Your task to perform on an android device: Open maps Image 0: 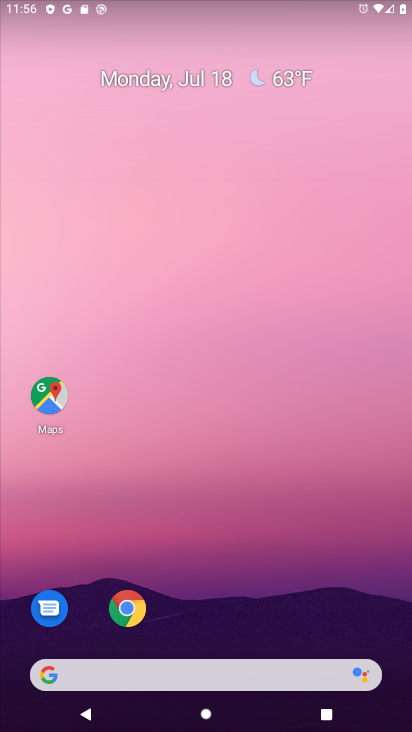
Step 0: click (57, 387)
Your task to perform on an android device: Open maps Image 1: 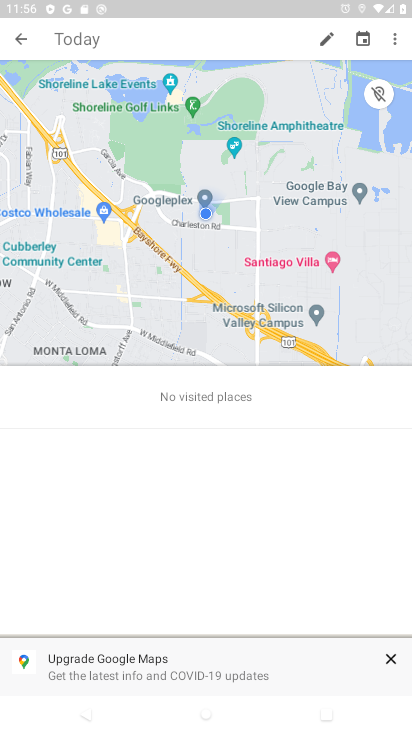
Step 1: task complete